Your task to perform on an android device: Open calendar and show me the second week of next month Image 0: 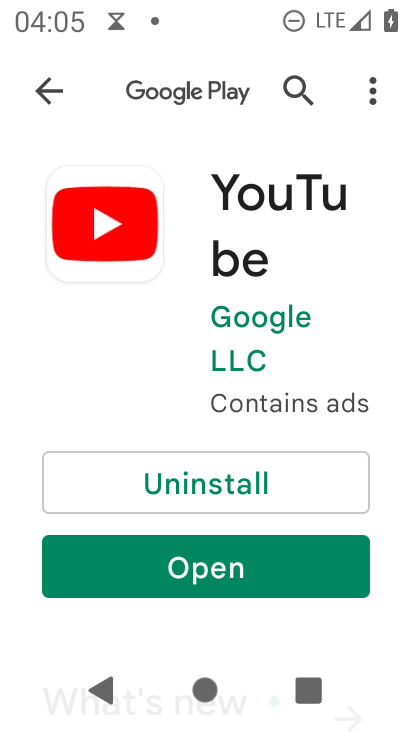
Step 0: press home button
Your task to perform on an android device: Open calendar and show me the second week of next month Image 1: 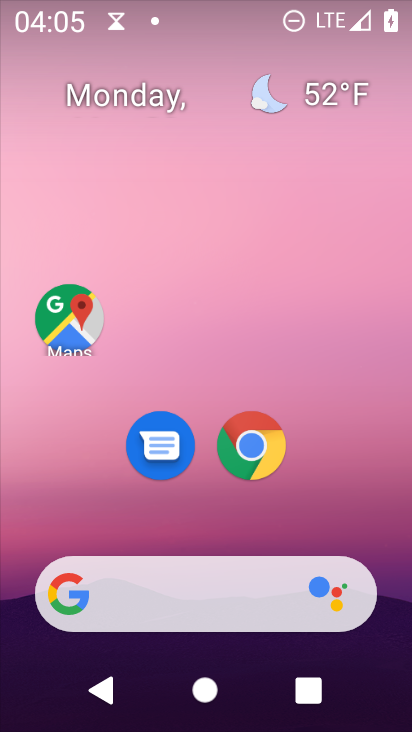
Step 1: drag from (207, 503) to (212, 14)
Your task to perform on an android device: Open calendar and show me the second week of next month Image 2: 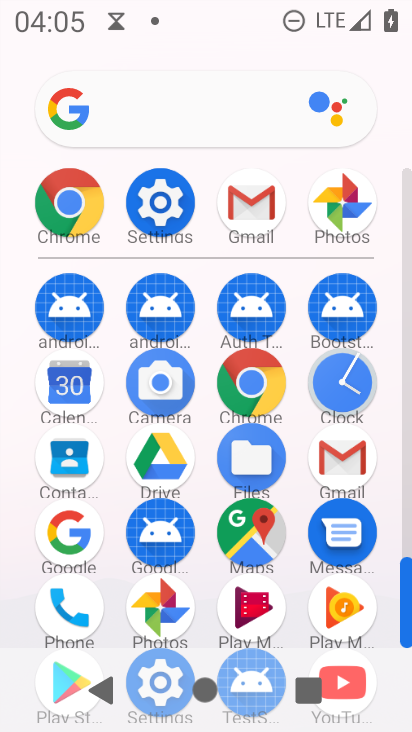
Step 2: click (58, 393)
Your task to perform on an android device: Open calendar and show me the second week of next month Image 3: 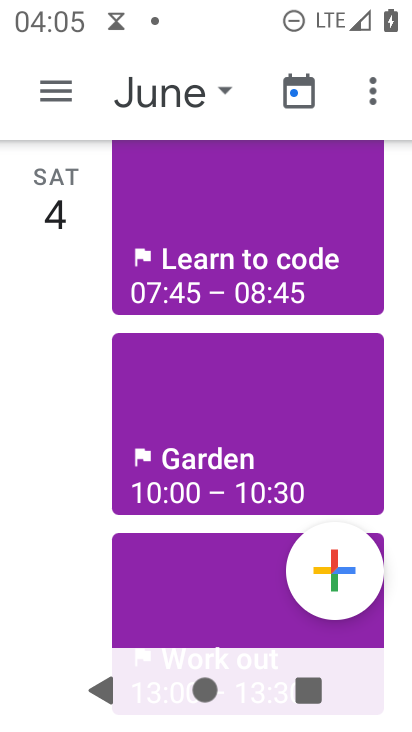
Step 3: click (50, 90)
Your task to perform on an android device: Open calendar and show me the second week of next month Image 4: 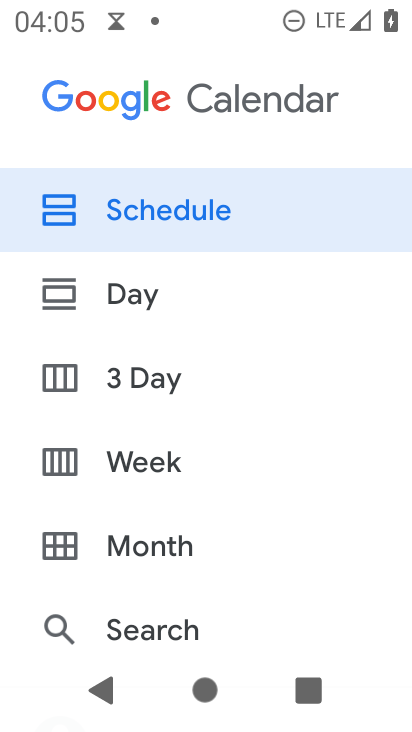
Step 4: click (173, 474)
Your task to perform on an android device: Open calendar and show me the second week of next month Image 5: 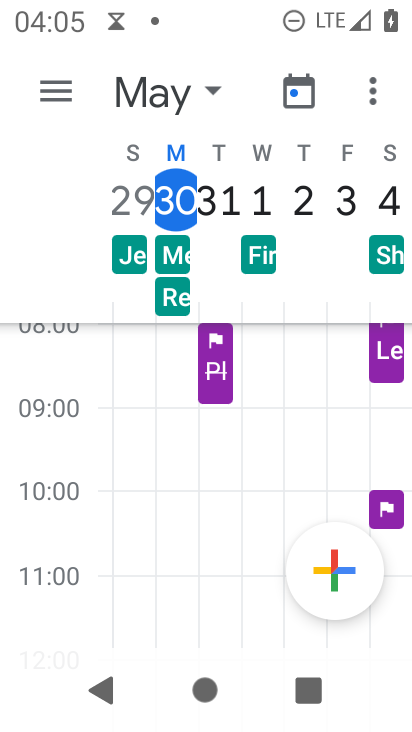
Step 5: task complete